Your task to perform on an android device: turn off javascript in the chrome app Image 0: 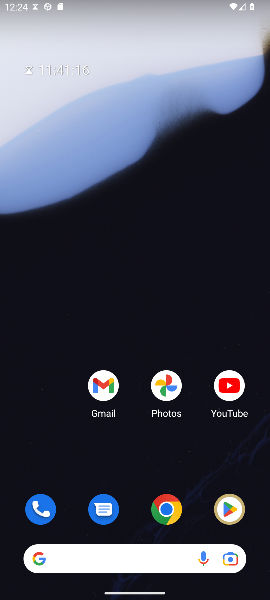
Step 0: press home button
Your task to perform on an android device: turn off javascript in the chrome app Image 1: 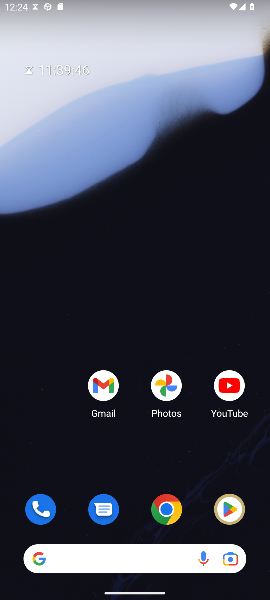
Step 1: click (169, 514)
Your task to perform on an android device: turn off javascript in the chrome app Image 2: 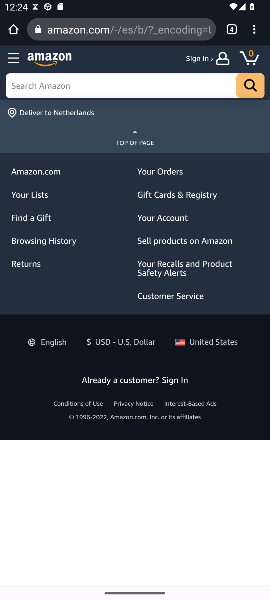
Step 2: drag from (256, 31) to (178, 377)
Your task to perform on an android device: turn off javascript in the chrome app Image 3: 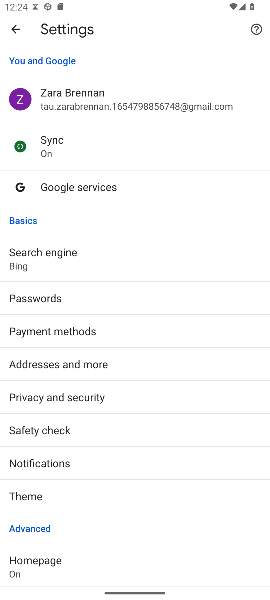
Step 3: drag from (157, 518) to (117, 133)
Your task to perform on an android device: turn off javascript in the chrome app Image 4: 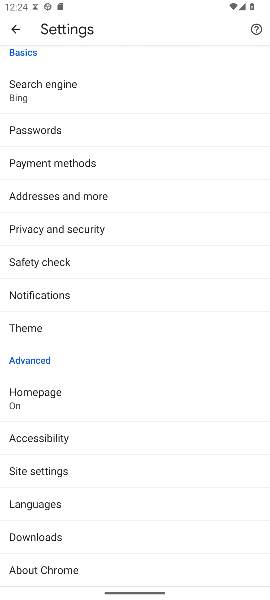
Step 4: click (33, 473)
Your task to perform on an android device: turn off javascript in the chrome app Image 5: 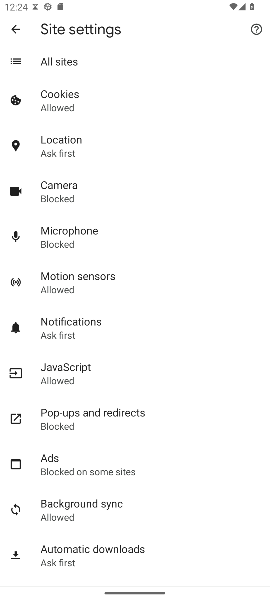
Step 5: click (47, 369)
Your task to perform on an android device: turn off javascript in the chrome app Image 6: 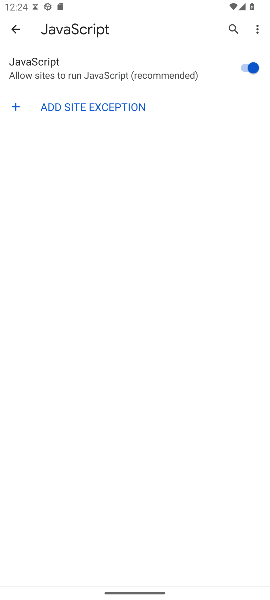
Step 6: click (256, 69)
Your task to perform on an android device: turn off javascript in the chrome app Image 7: 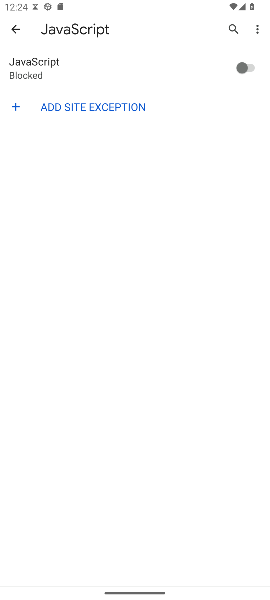
Step 7: task complete